Your task to perform on an android device: Open battery settings Image 0: 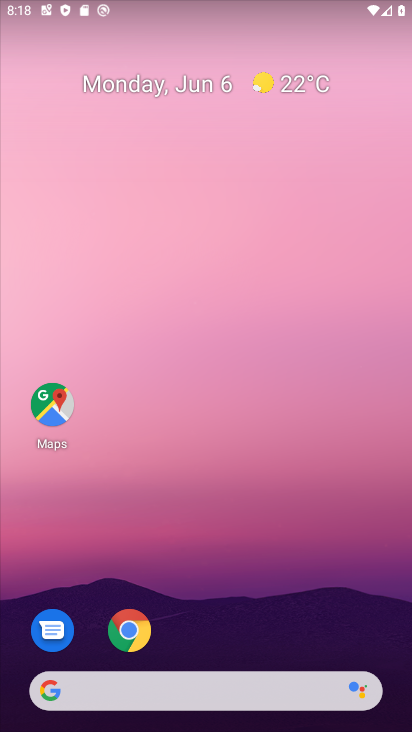
Step 0: drag from (151, 721) to (96, 103)
Your task to perform on an android device: Open battery settings Image 1: 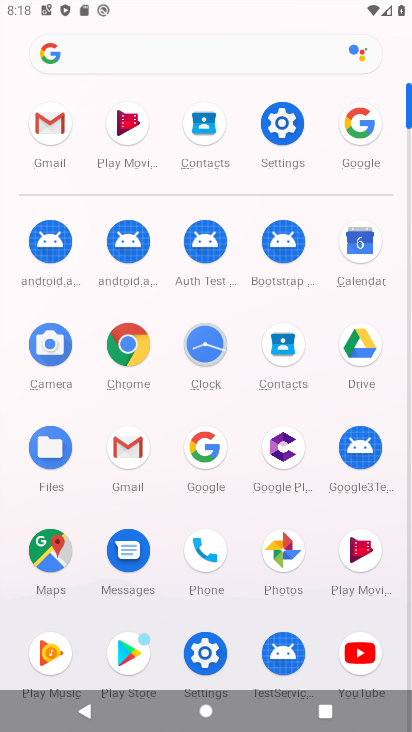
Step 1: click (286, 151)
Your task to perform on an android device: Open battery settings Image 2: 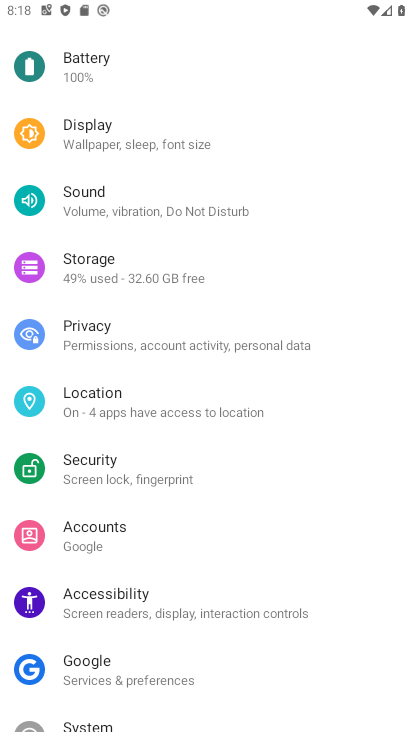
Step 2: click (71, 75)
Your task to perform on an android device: Open battery settings Image 3: 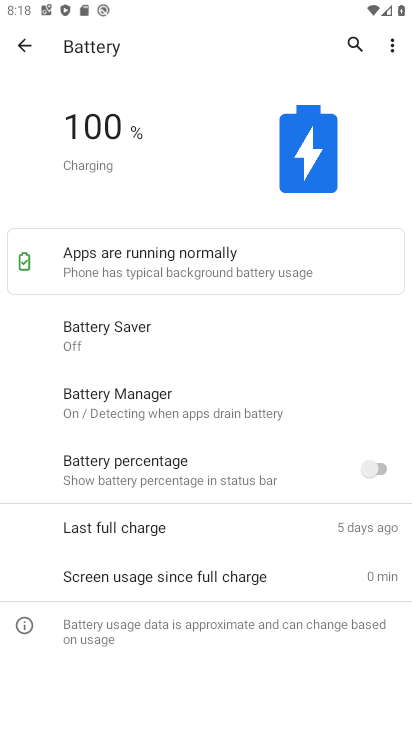
Step 3: task complete